Your task to perform on an android device: Open location settings Image 0: 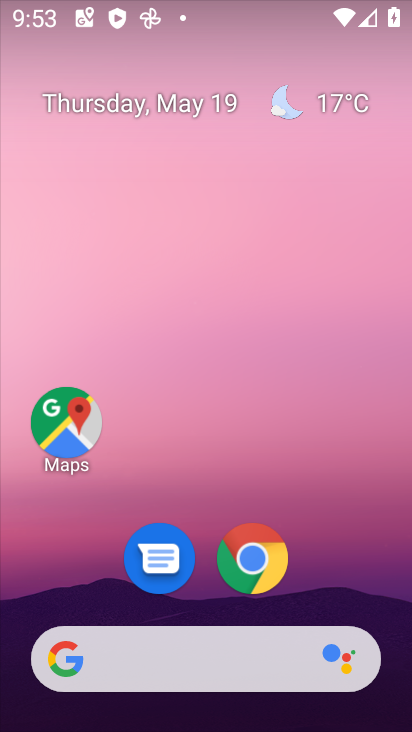
Step 0: drag from (196, 716) to (205, 75)
Your task to perform on an android device: Open location settings Image 1: 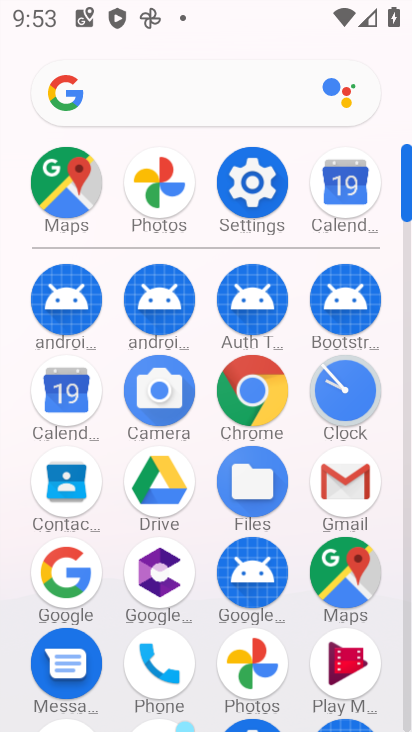
Step 1: click (250, 183)
Your task to perform on an android device: Open location settings Image 2: 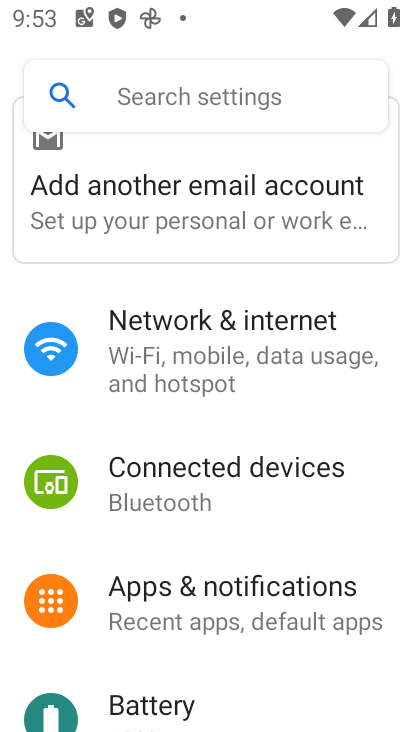
Step 2: drag from (212, 669) to (206, 304)
Your task to perform on an android device: Open location settings Image 3: 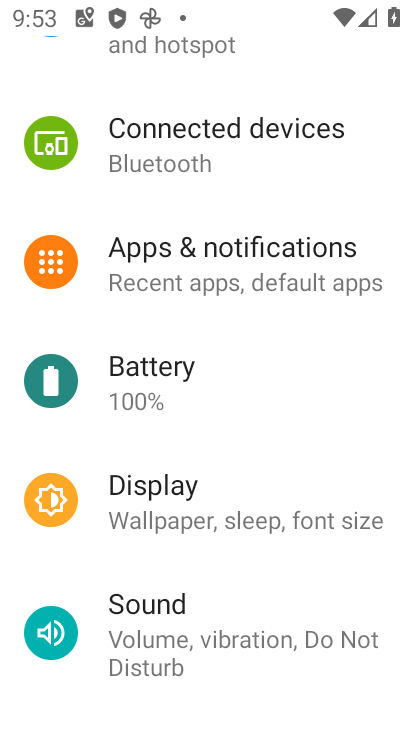
Step 3: drag from (222, 644) to (217, 241)
Your task to perform on an android device: Open location settings Image 4: 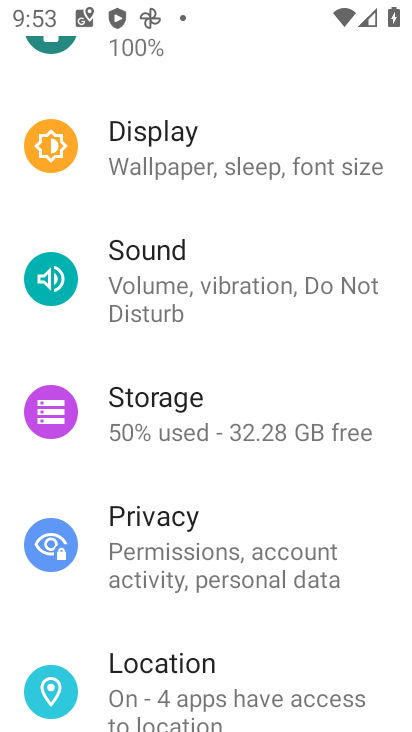
Step 4: click (201, 666)
Your task to perform on an android device: Open location settings Image 5: 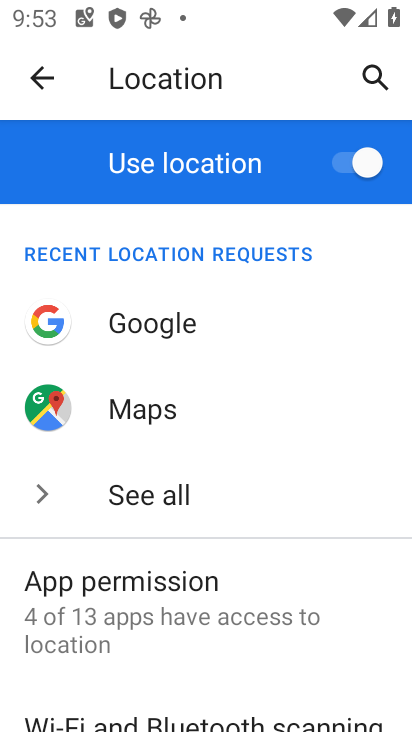
Step 5: task complete